Your task to perform on an android device: turn on javascript in the chrome app Image 0: 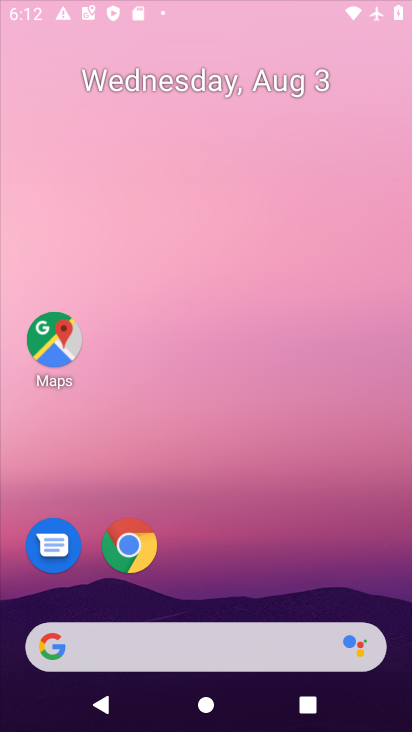
Step 0: press home button
Your task to perform on an android device: turn on javascript in the chrome app Image 1: 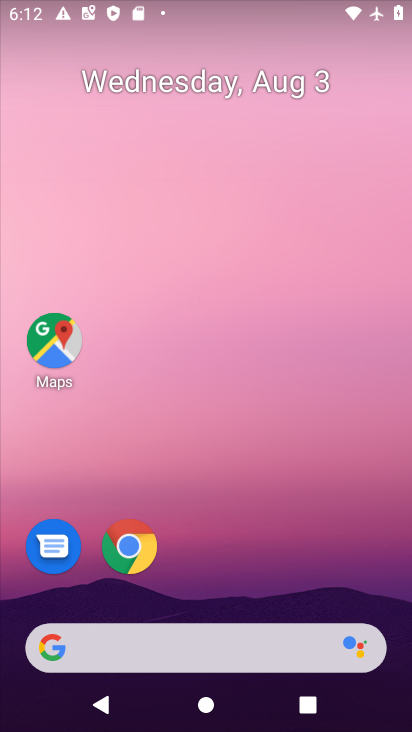
Step 1: click (124, 548)
Your task to perform on an android device: turn on javascript in the chrome app Image 2: 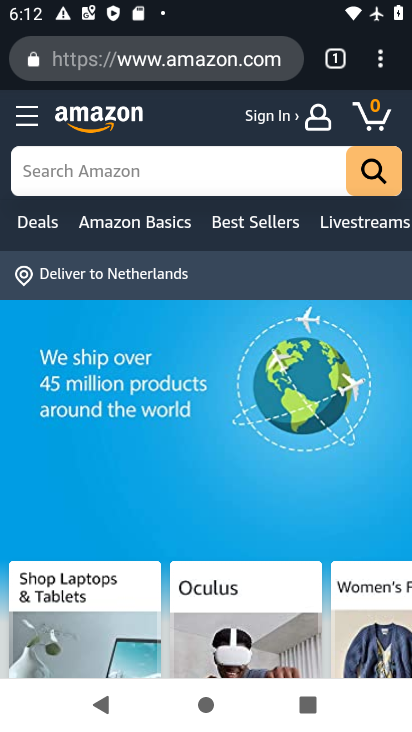
Step 2: drag from (371, 60) to (325, 413)
Your task to perform on an android device: turn on javascript in the chrome app Image 3: 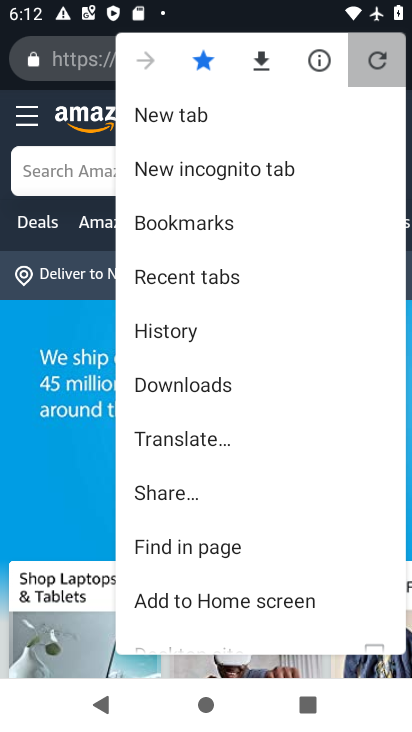
Step 3: drag from (351, 518) to (372, 23)
Your task to perform on an android device: turn on javascript in the chrome app Image 4: 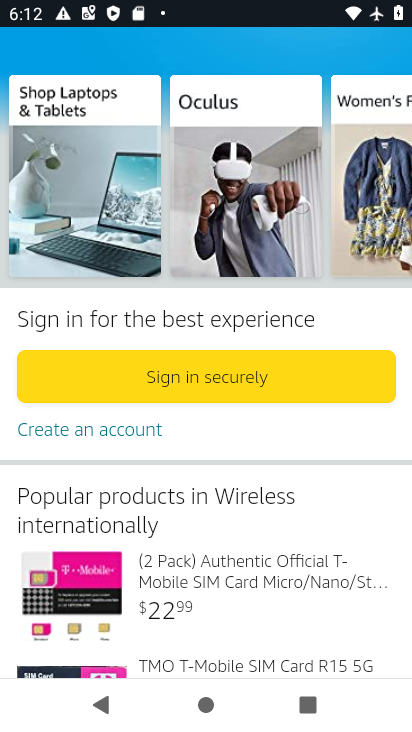
Step 4: click (192, 54)
Your task to perform on an android device: turn on javascript in the chrome app Image 5: 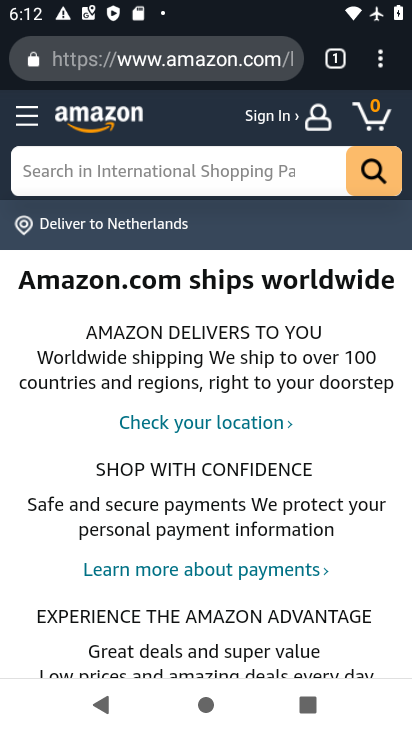
Step 5: click (378, 68)
Your task to perform on an android device: turn on javascript in the chrome app Image 6: 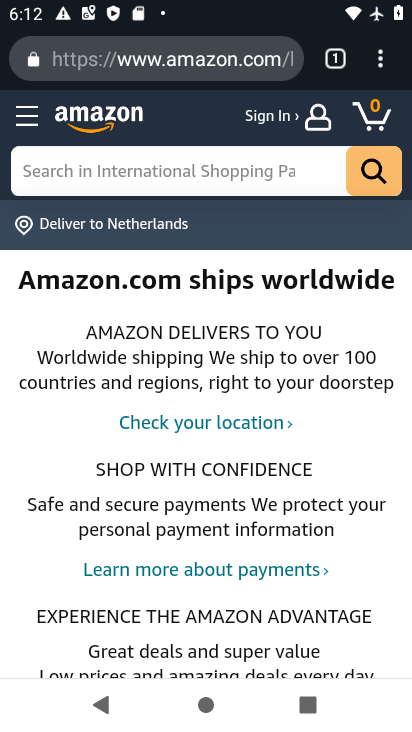
Step 6: click (374, 62)
Your task to perform on an android device: turn on javascript in the chrome app Image 7: 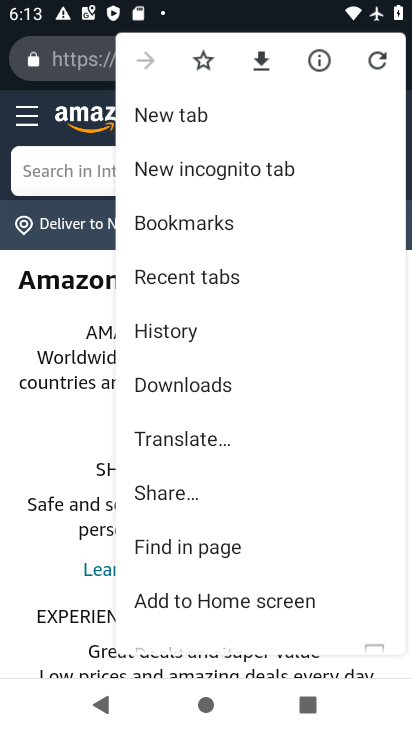
Step 7: drag from (271, 587) to (326, 127)
Your task to perform on an android device: turn on javascript in the chrome app Image 8: 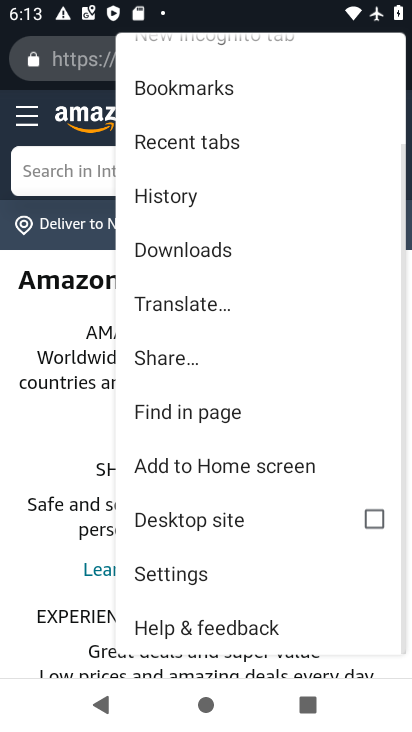
Step 8: click (176, 572)
Your task to perform on an android device: turn on javascript in the chrome app Image 9: 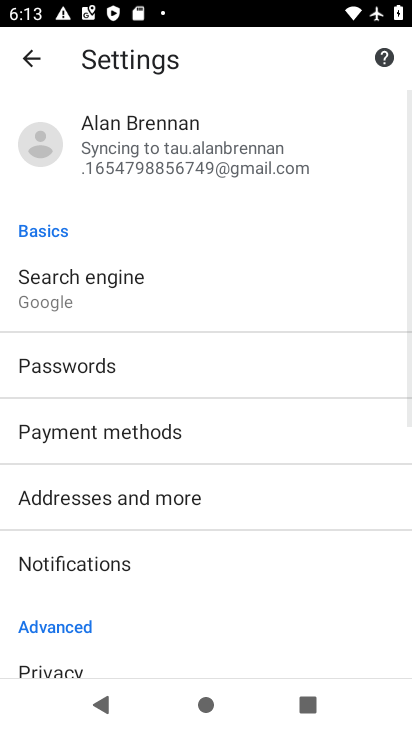
Step 9: drag from (296, 623) to (331, 178)
Your task to perform on an android device: turn on javascript in the chrome app Image 10: 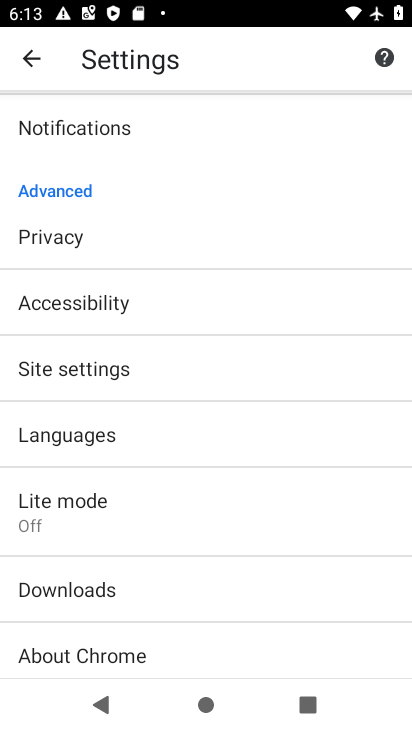
Step 10: click (75, 364)
Your task to perform on an android device: turn on javascript in the chrome app Image 11: 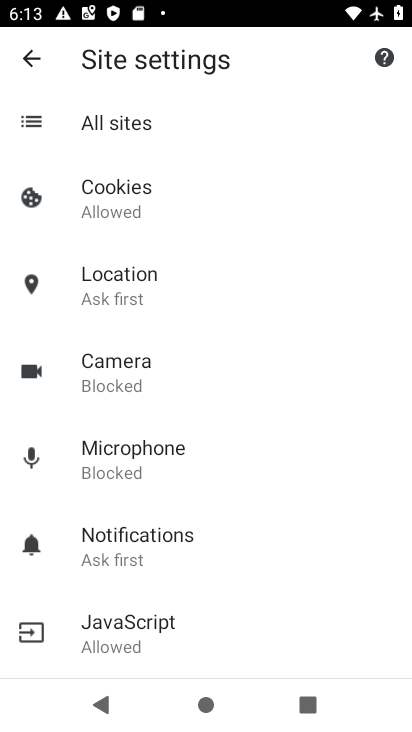
Step 11: click (119, 635)
Your task to perform on an android device: turn on javascript in the chrome app Image 12: 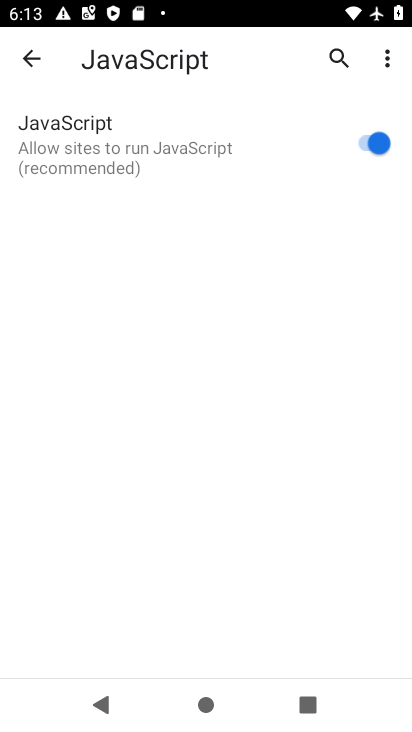
Step 12: task complete